Your task to perform on an android device: Open calendar and show me the first week of next month Image 0: 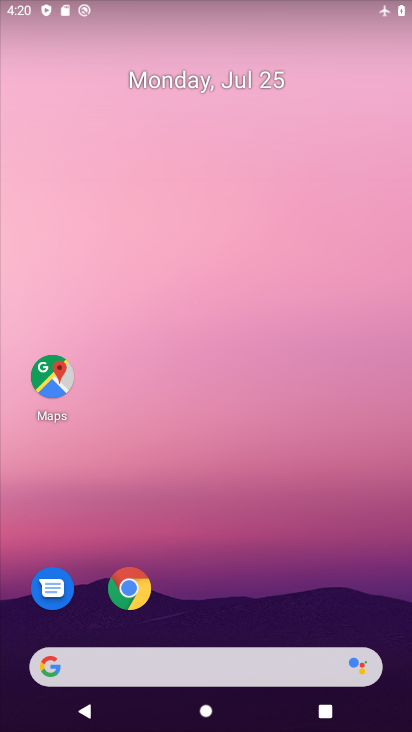
Step 0: drag from (224, 379) to (214, 280)
Your task to perform on an android device: Open calendar and show me the first week of next month Image 1: 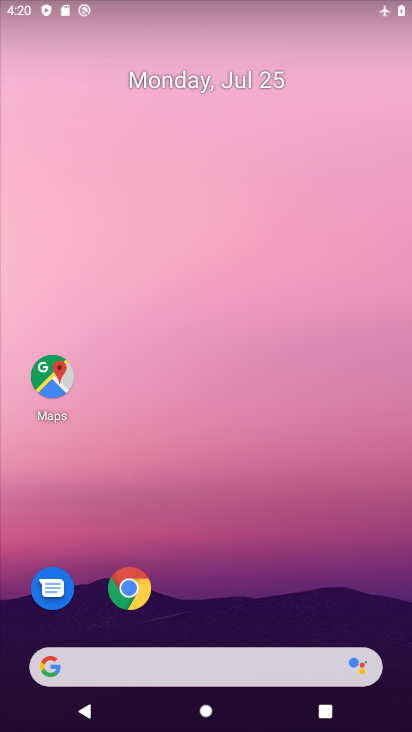
Step 1: drag from (254, 560) to (245, 260)
Your task to perform on an android device: Open calendar and show me the first week of next month Image 2: 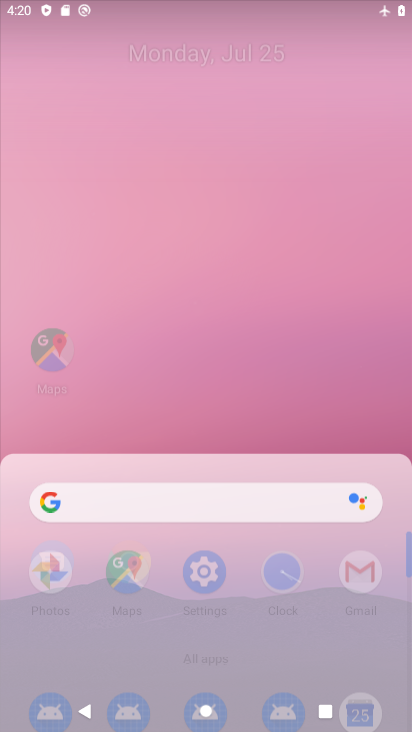
Step 2: drag from (273, 524) to (272, 326)
Your task to perform on an android device: Open calendar and show me the first week of next month Image 3: 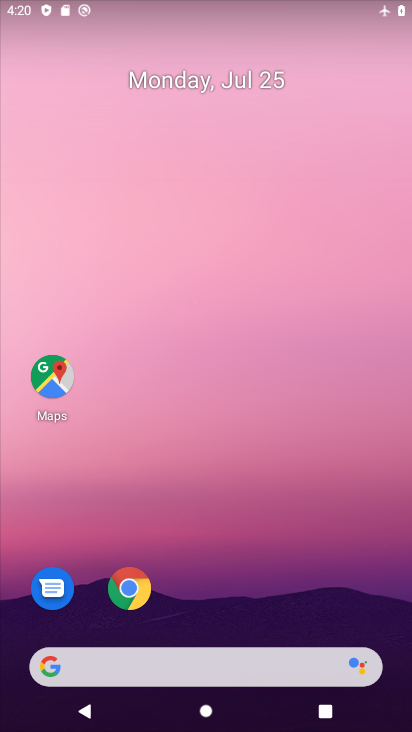
Step 3: drag from (263, 515) to (287, 250)
Your task to perform on an android device: Open calendar and show me the first week of next month Image 4: 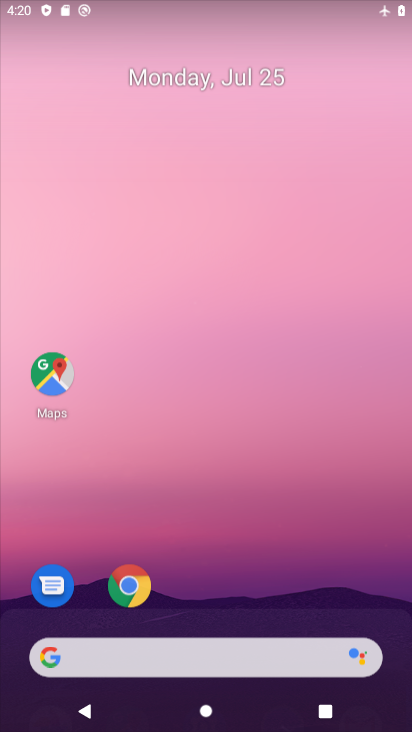
Step 4: drag from (252, 487) to (171, 218)
Your task to perform on an android device: Open calendar and show me the first week of next month Image 5: 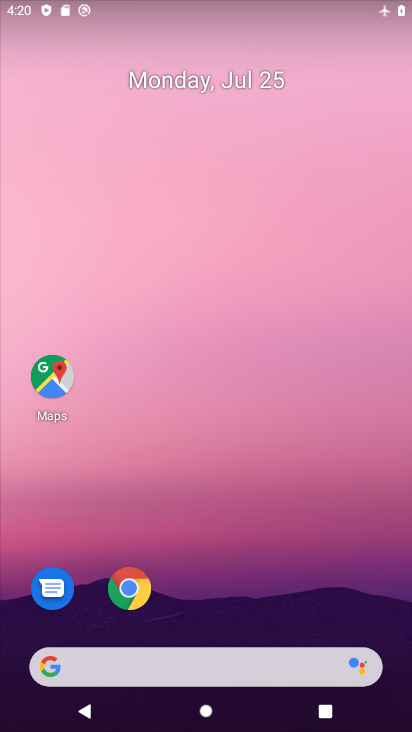
Step 5: drag from (167, 380) to (151, 267)
Your task to perform on an android device: Open calendar and show me the first week of next month Image 6: 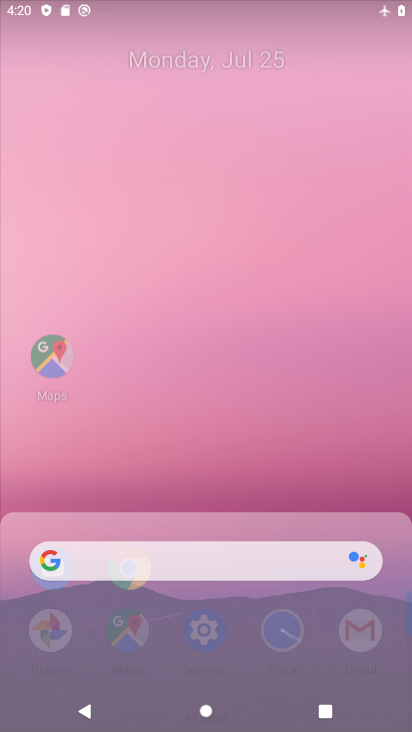
Step 6: drag from (226, 578) to (207, 299)
Your task to perform on an android device: Open calendar and show me the first week of next month Image 7: 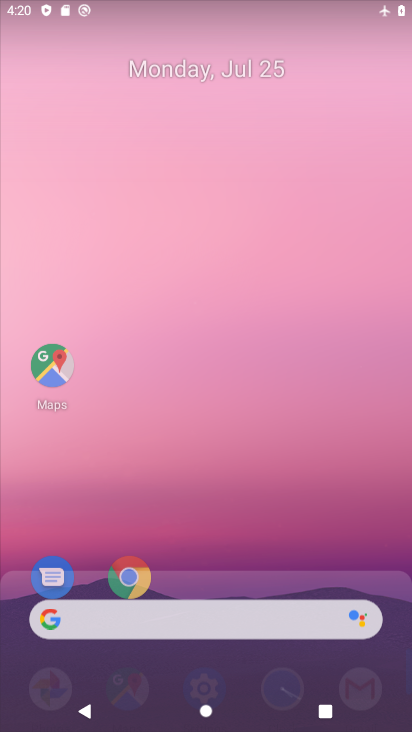
Step 7: drag from (215, 444) to (169, 144)
Your task to perform on an android device: Open calendar and show me the first week of next month Image 8: 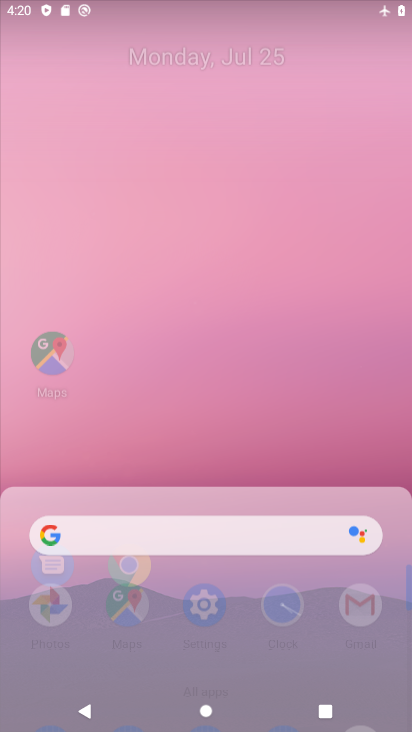
Step 8: drag from (174, 427) to (187, 122)
Your task to perform on an android device: Open calendar and show me the first week of next month Image 9: 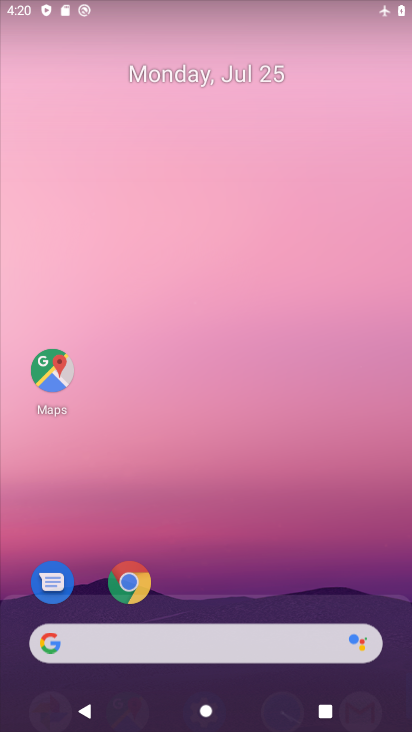
Step 9: drag from (220, 539) to (197, 246)
Your task to perform on an android device: Open calendar and show me the first week of next month Image 10: 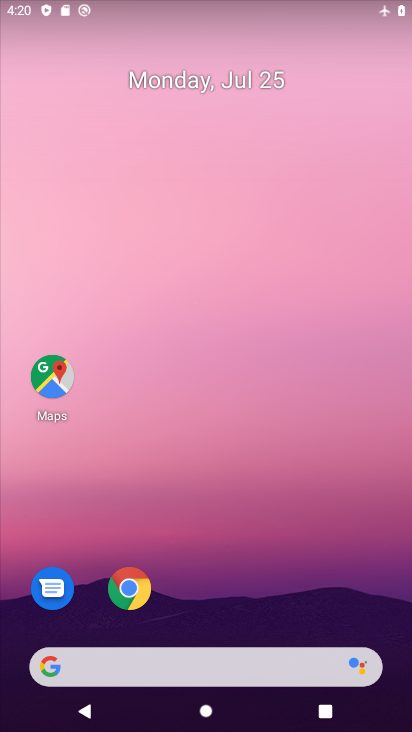
Step 10: drag from (160, 285) to (140, 156)
Your task to perform on an android device: Open calendar and show me the first week of next month Image 11: 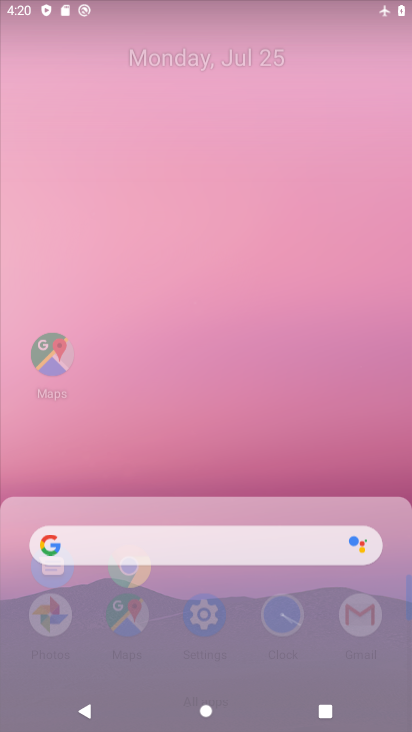
Step 11: drag from (230, 486) to (218, 123)
Your task to perform on an android device: Open calendar and show me the first week of next month Image 12: 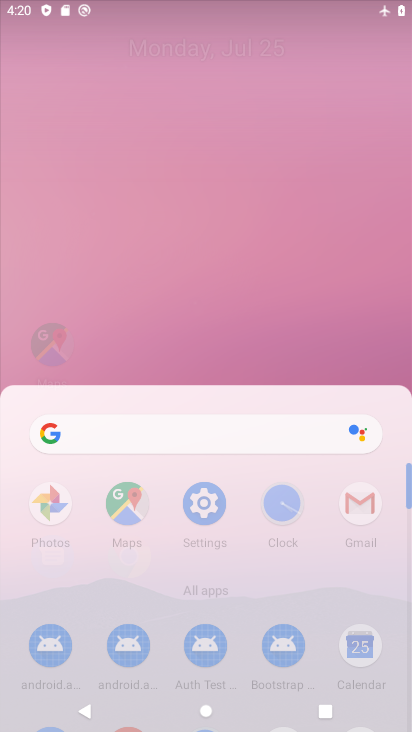
Step 12: drag from (262, 543) to (231, 249)
Your task to perform on an android device: Open calendar and show me the first week of next month Image 13: 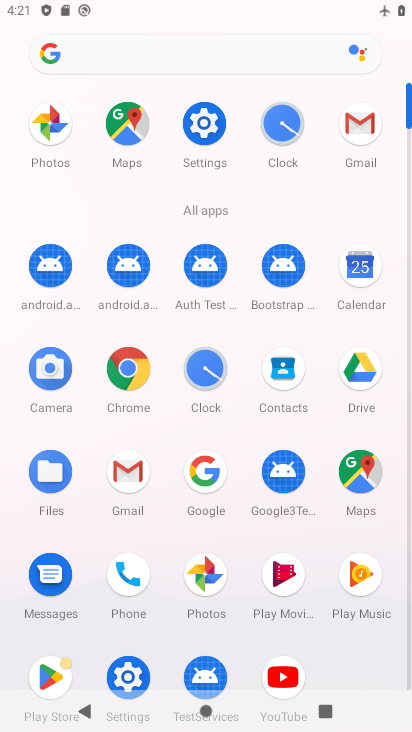
Step 13: click (351, 260)
Your task to perform on an android device: Open calendar and show me the first week of next month Image 14: 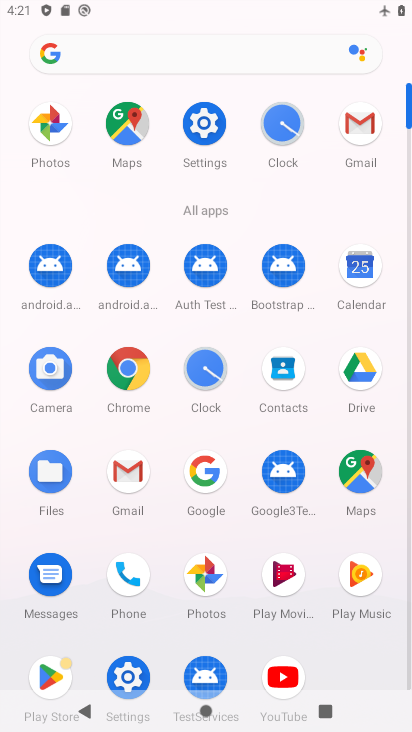
Step 14: click (350, 259)
Your task to perform on an android device: Open calendar and show me the first week of next month Image 15: 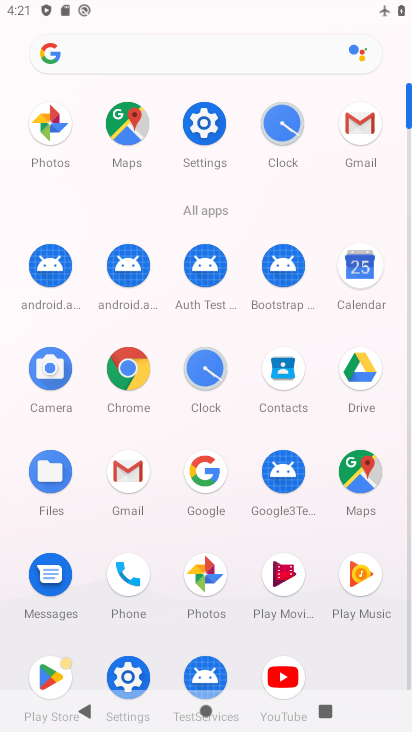
Step 15: click (353, 262)
Your task to perform on an android device: Open calendar and show me the first week of next month Image 16: 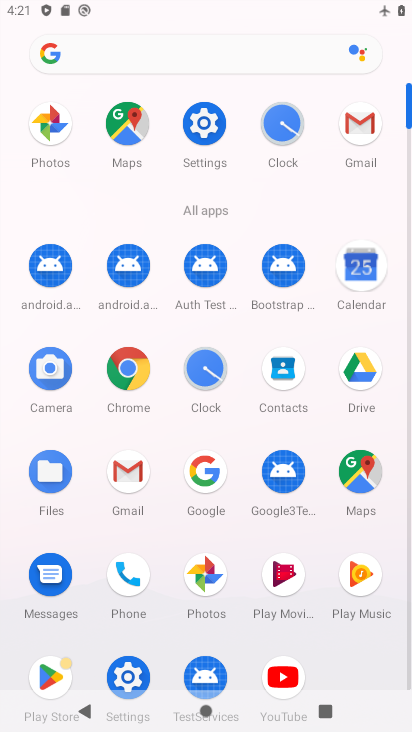
Step 16: click (349, 254)
Your task to perform on an android device: Open calendar and show me the first week of next month Image 17: 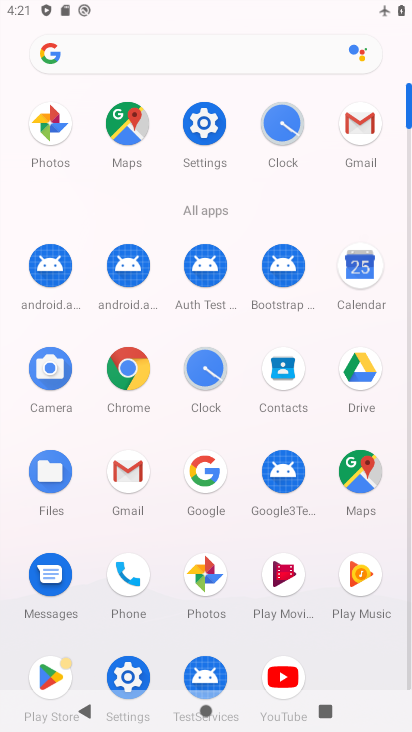
Step 17: click (348, 253)
Your task to perform on an android device: Open calendar and show me the first week of next month Image 18: 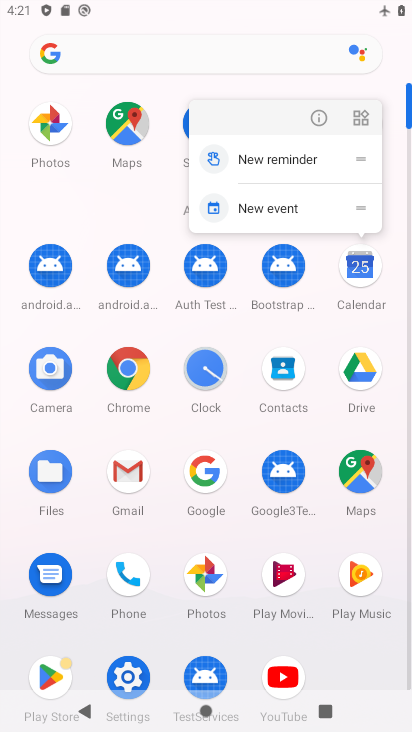
Step 18: click (346, 256)
Your task to perform on an android device: Open calendar and show me the first week of next month Image 19: 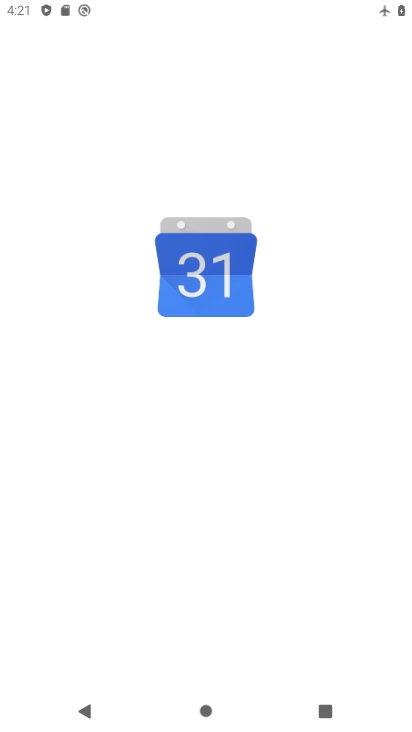
Step 19: click (354, 260)
Your task to perform on an android device: Open calendar and show me the first week of next month Image 20: 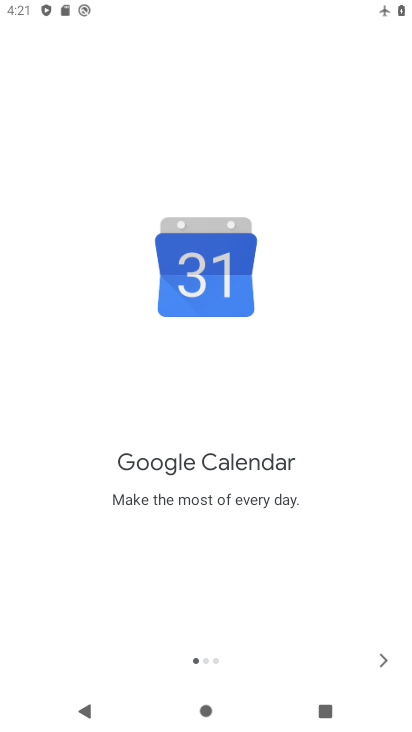
Step 20: click (380, 656)
Your task to perform on an android device: Open calendar and show me the first week of next month Image 21: 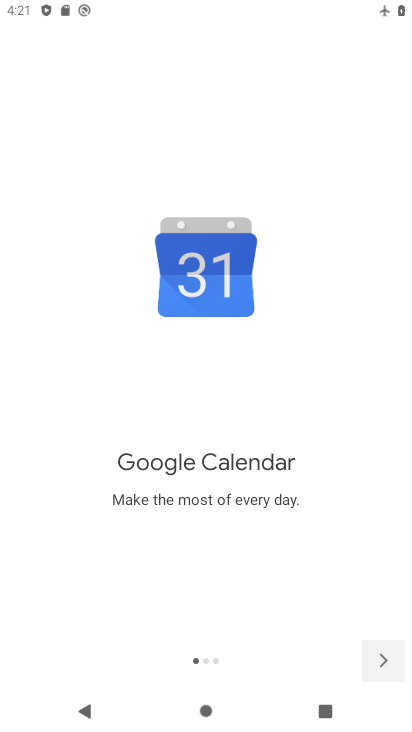
Step 21: click (380, 656)
Your task to perform on an android device: Open calendar and show me the first week of next month Image 22: 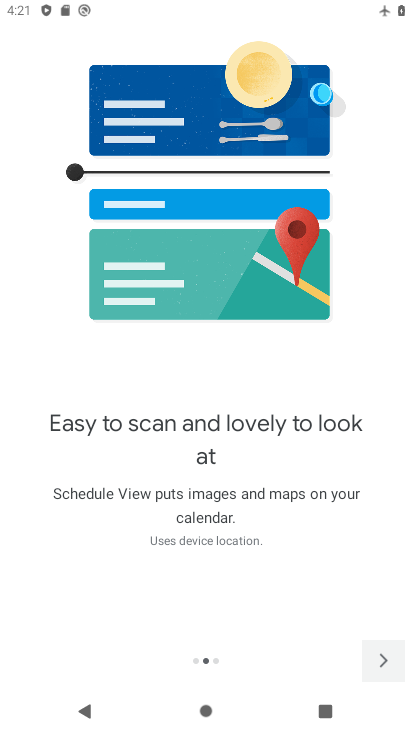
Step 22: click (381, 655)
Your task to perform on an android device: Open calendar and show me the first week of next month Image 23: 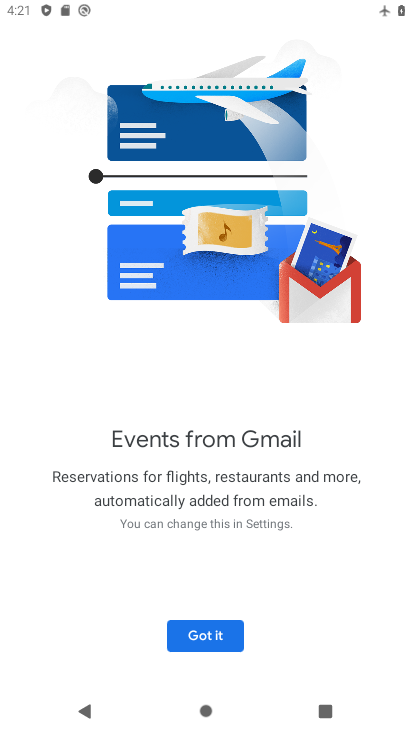
Step 23: click (211, 634)
Your task to perform on an android device: Open calendar and show me the first week of next month Image 24: 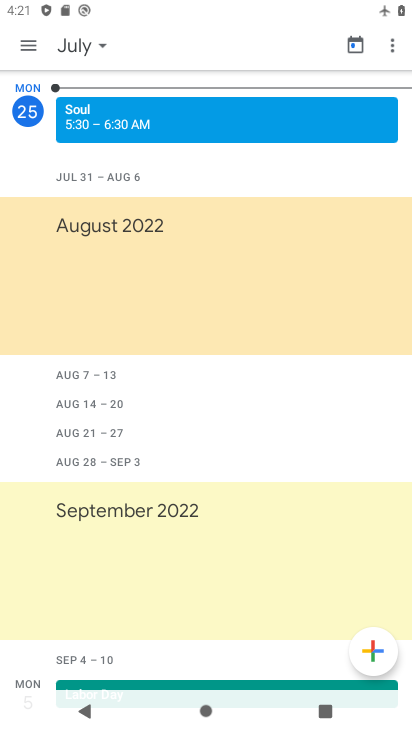
Step 24: click (100, 46)
Your task to perform on an android device: Open calendar and show me the first week of next month Image 25: 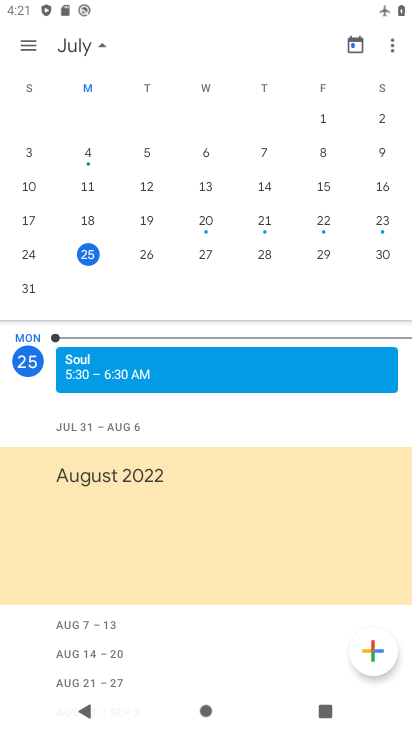
Step 25: task complete